Your task to perform on an android device: Go to location settings Image 0: 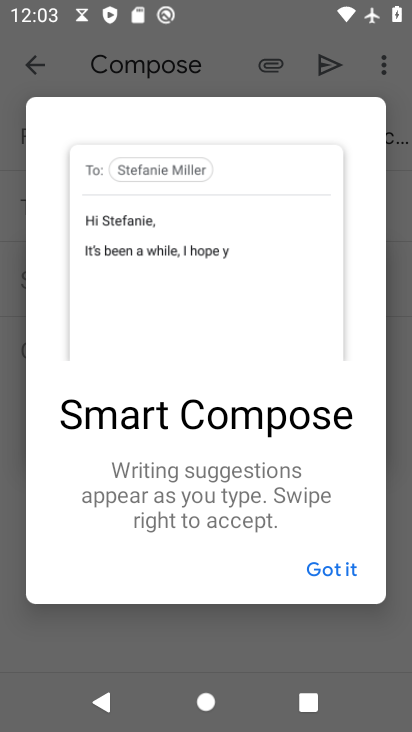
Step 0: press home button
Your task to perform on an android device: Go to location settings Image 1: 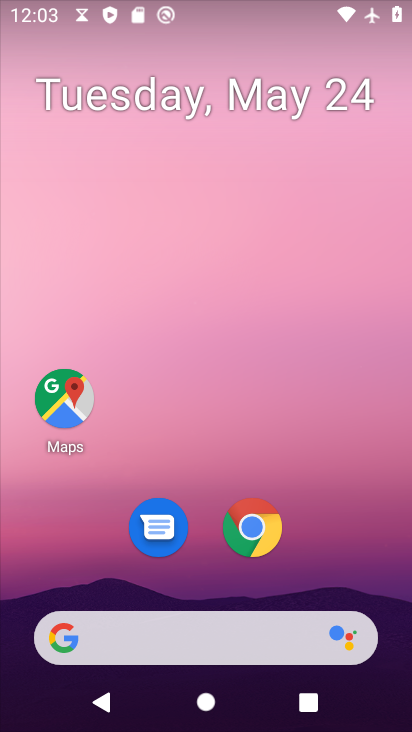
Step 1: drag from (173, 636) to (312, 97)
Your task to perform on an android device: Go to location settings Image 2: 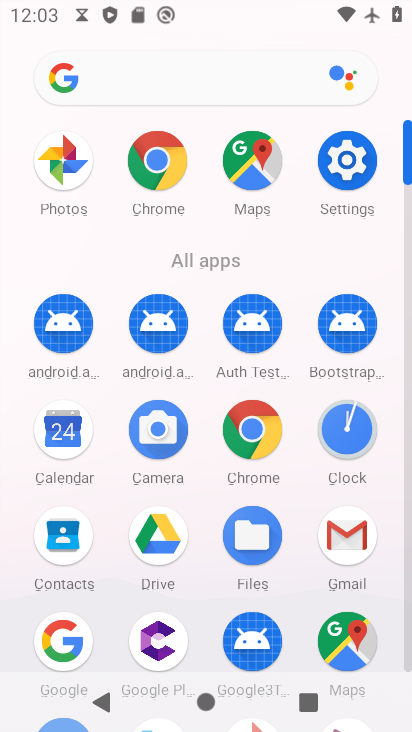
Step 2: click (343, 160)
Your task to perform on an android device: Go to location settings Image 3: 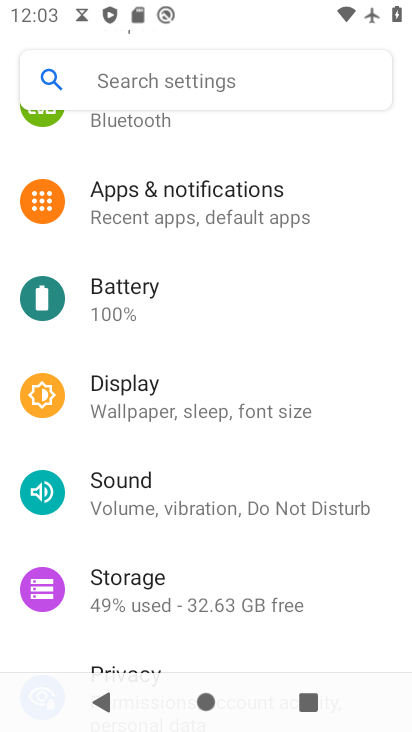
Step 3: drag from (223, 472) to (320, 135)
Your task to perform on an android device: Go to location settings Image 4: 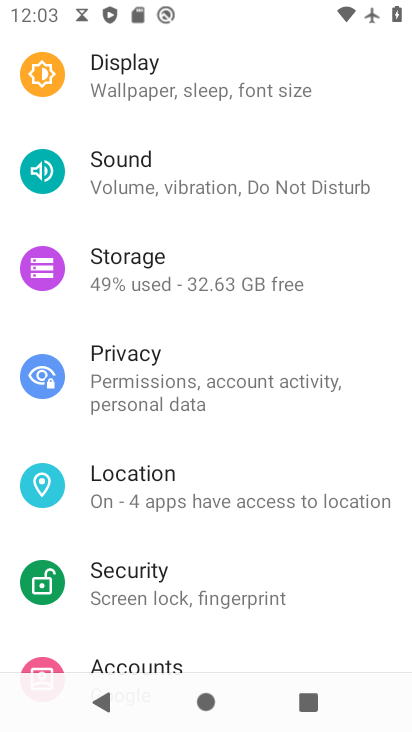
Step 4: click (157, 492)
Your task to perform on an android device: Go to location settings Image 5: 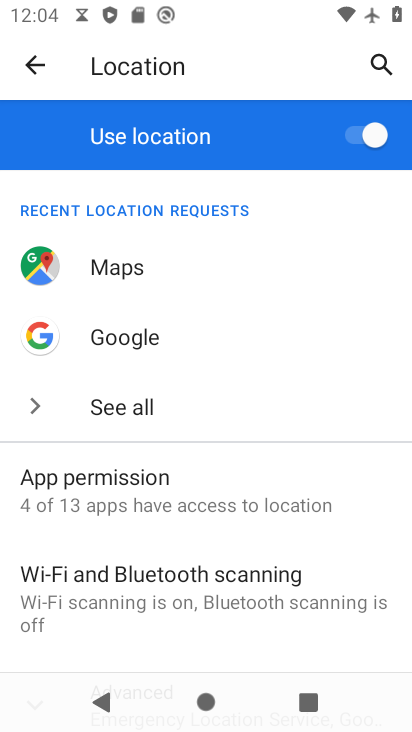
Step 5: task complete